Your task to perform on an android device: Is it going to rain this weekend? Image 0: 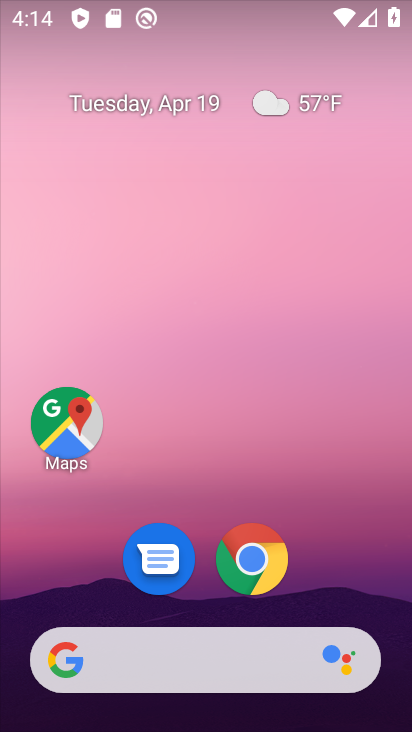
Step 0: drag from (305, 315) to (411, 290)
Your task to perform on an android device: Is it going to rain this weekend? Image 1: 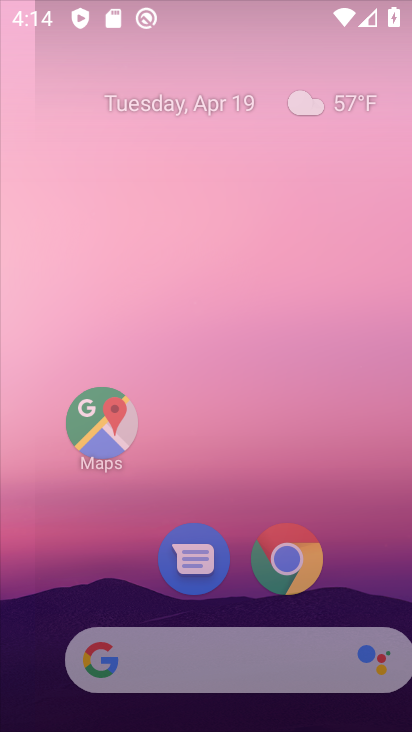
Step 1: click (306, 270)
Your task to perform on an android device: Is it going to rain this weekend? Image 2: 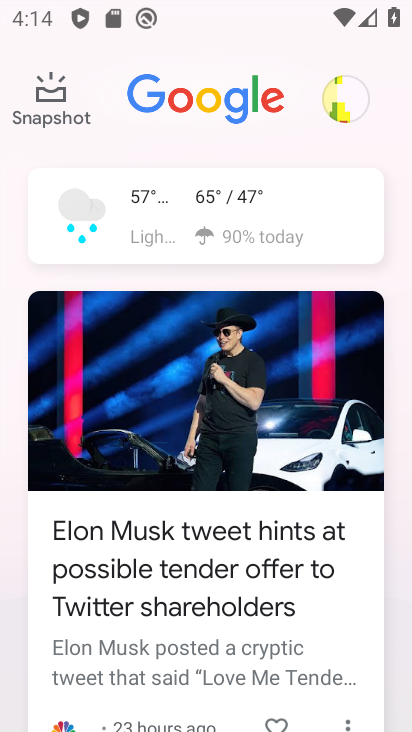
Step 2: click (304, 212)
Your task to perform on an android device: Is it going to rain this weekend? Image 3: 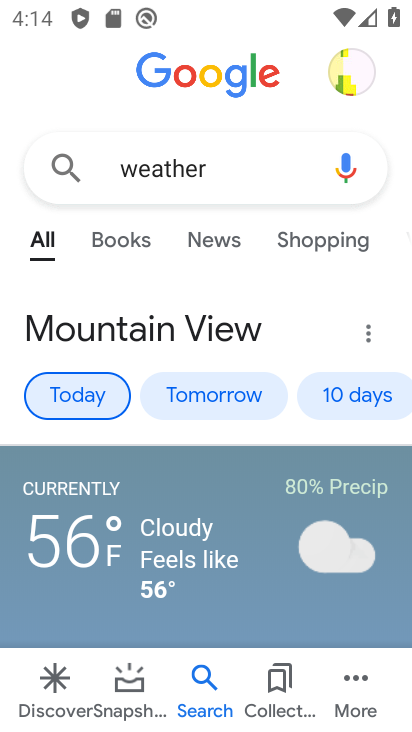
Step 3: click (342, 387)
Your task to perform on an android device: Is it going to rain this weekend? Image 4: 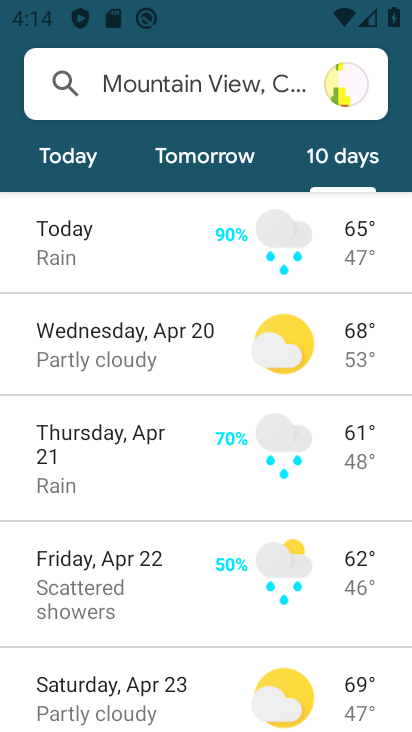
Step 4: task complete